Your task to perform on an android device: turn on showing notifications on the lock screen Image 0: 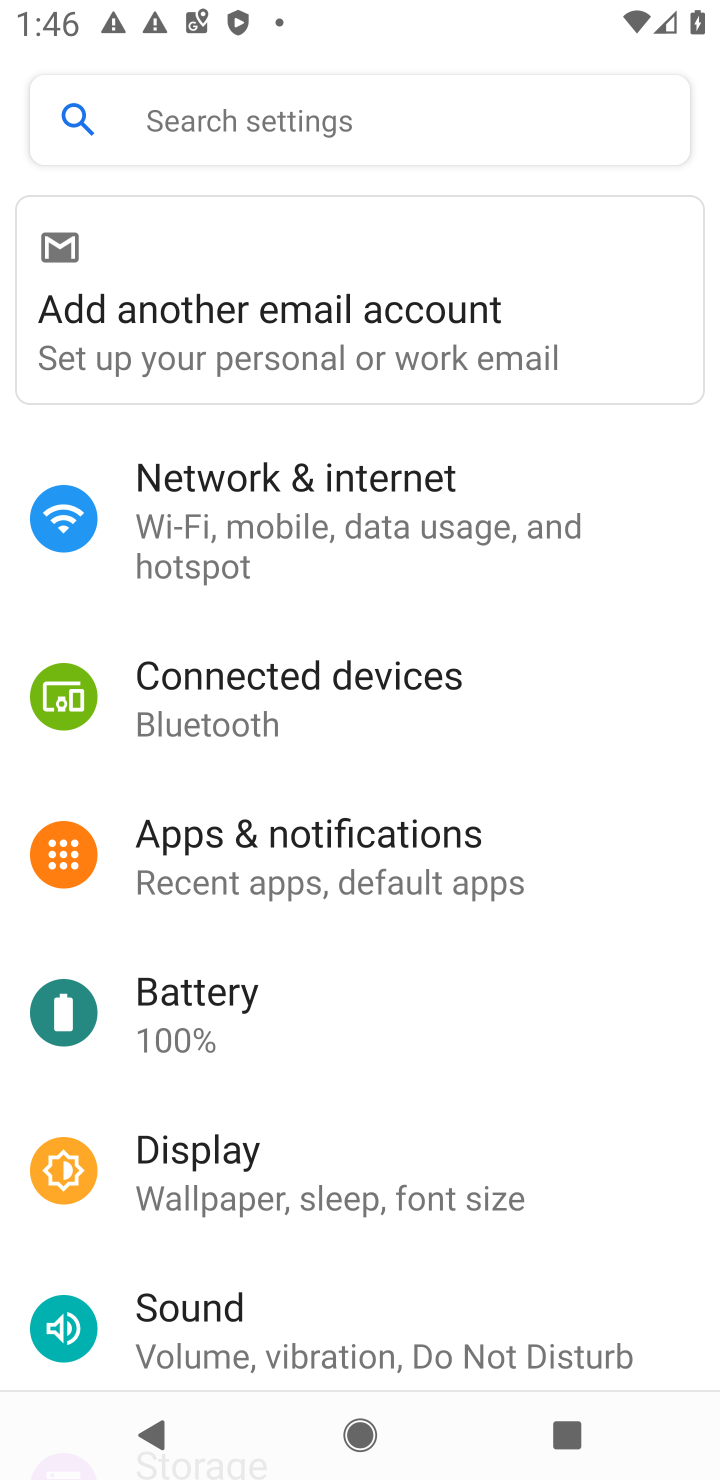
Step 0: click (263, 850)
Your task to perform on an android device: turn on showing notifications on the lock screen Image 1: 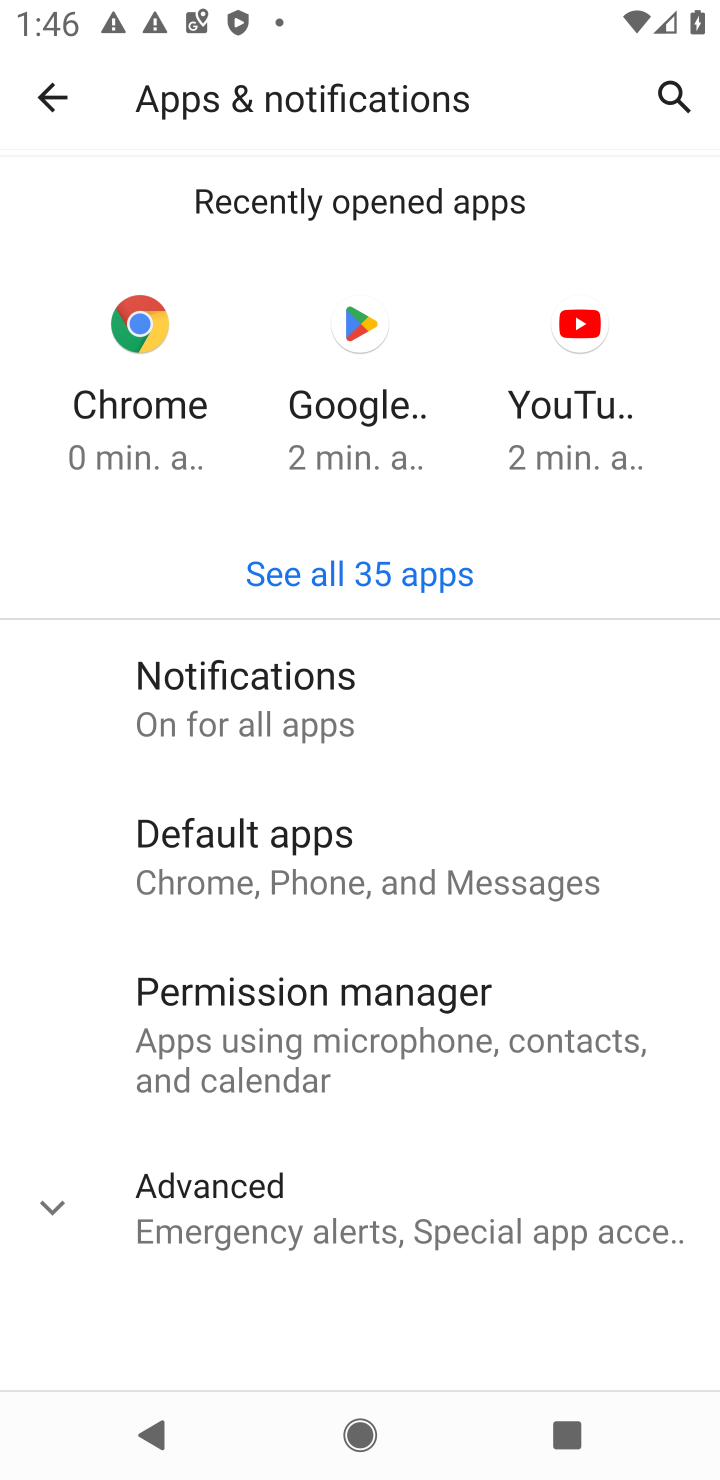
Step 1: click (210, 669)
Your task to perform on an android device: turn on showing notifications on the lock screen Image 2: 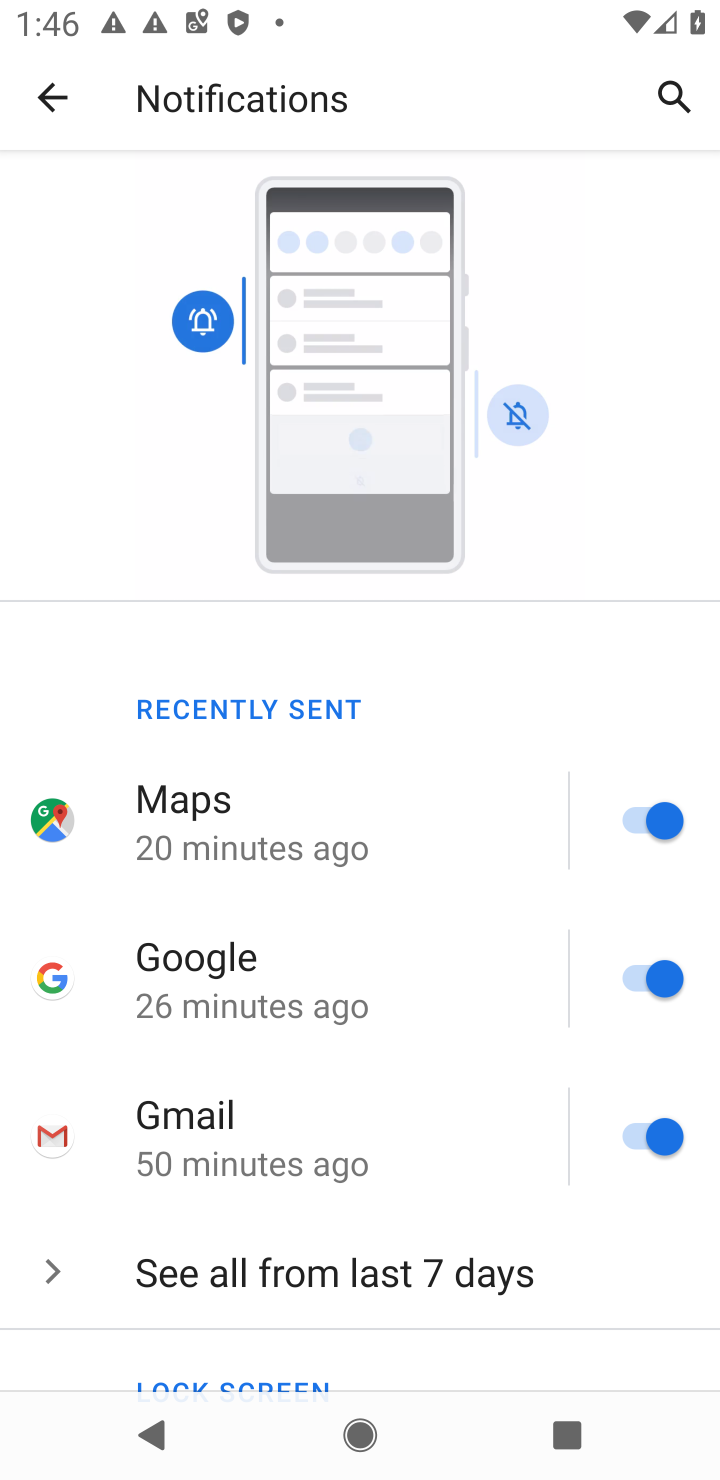
Step 2: drag from (571, 1319) to (543, 503)
Your task to perform on an android device: turn on showing notifications on the lock screen Image 3: 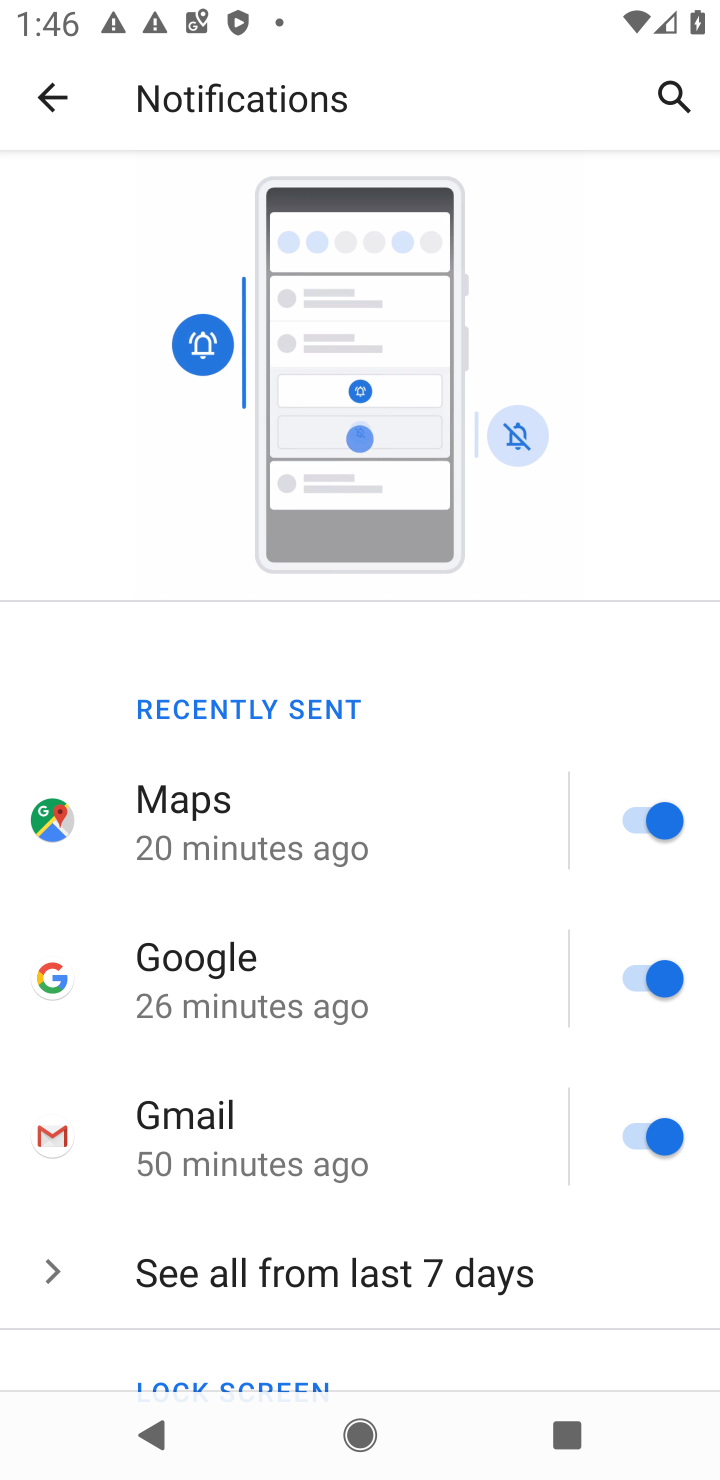
Step 3: drag from (555, 659) to (560, 474)
Your task to perform on an android device: turn on showing notifications on the lock screen Image 4: 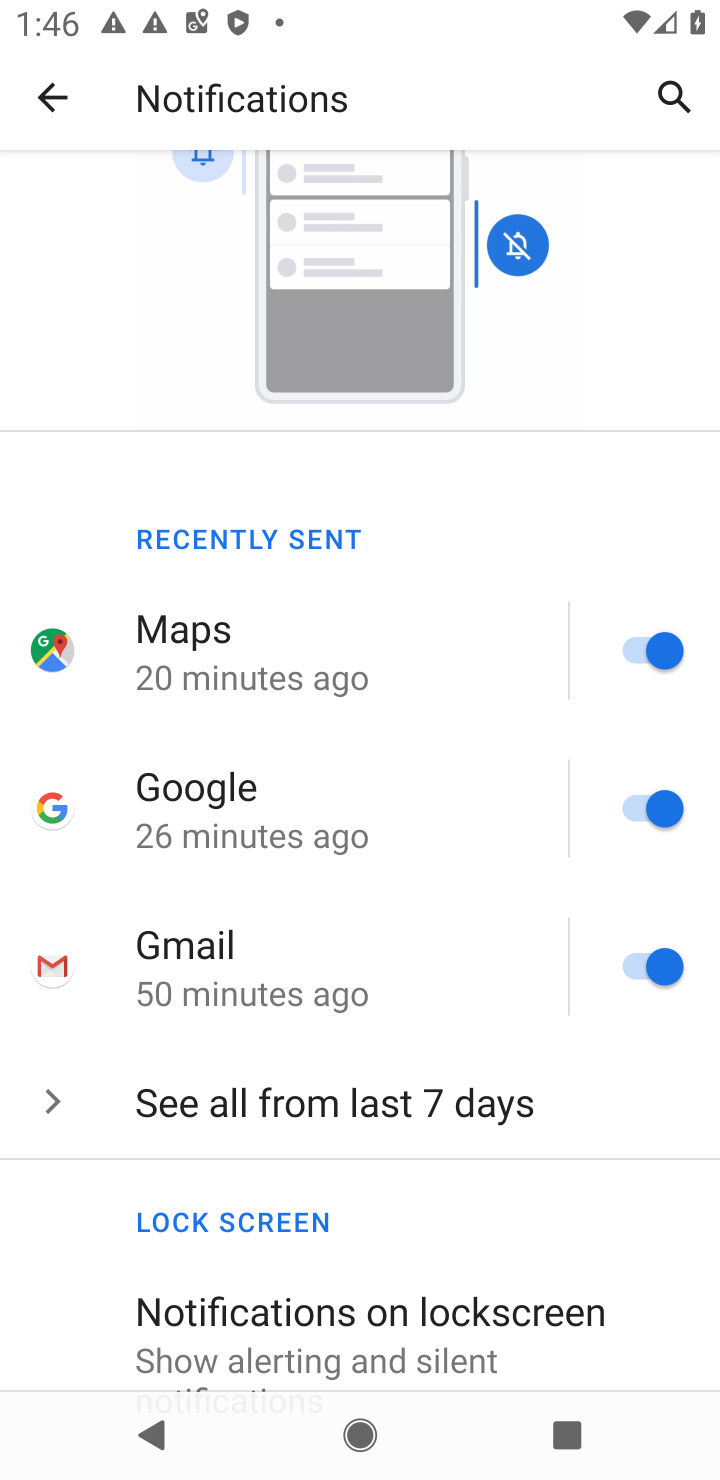
Step 4: drag from (518, 1304) to (540, 716)
Your task to perform on an android device: turn on showing notifications on the lock screen Image 5: 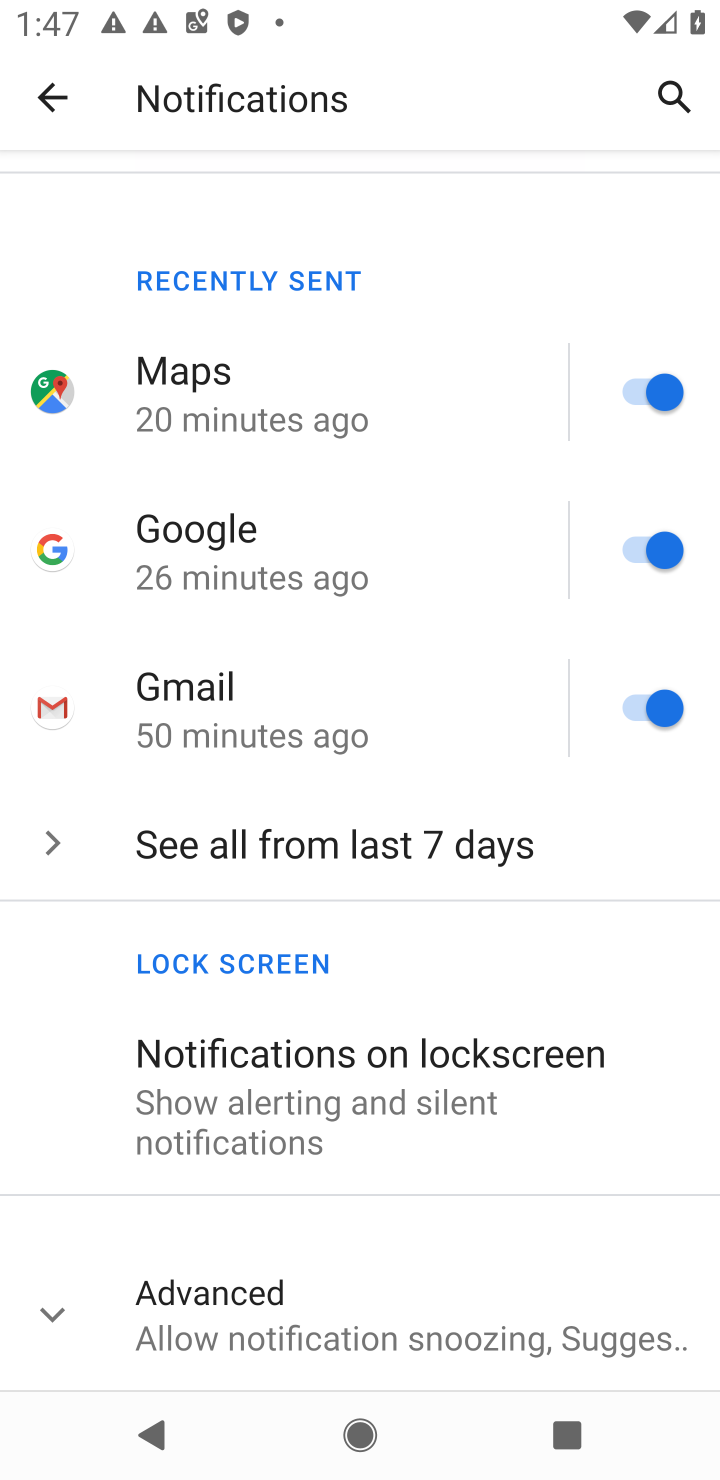
Step 5: click (252, 1091)
Your task to perform on an android device: turn on showing notifications on the lock screen Image 6: 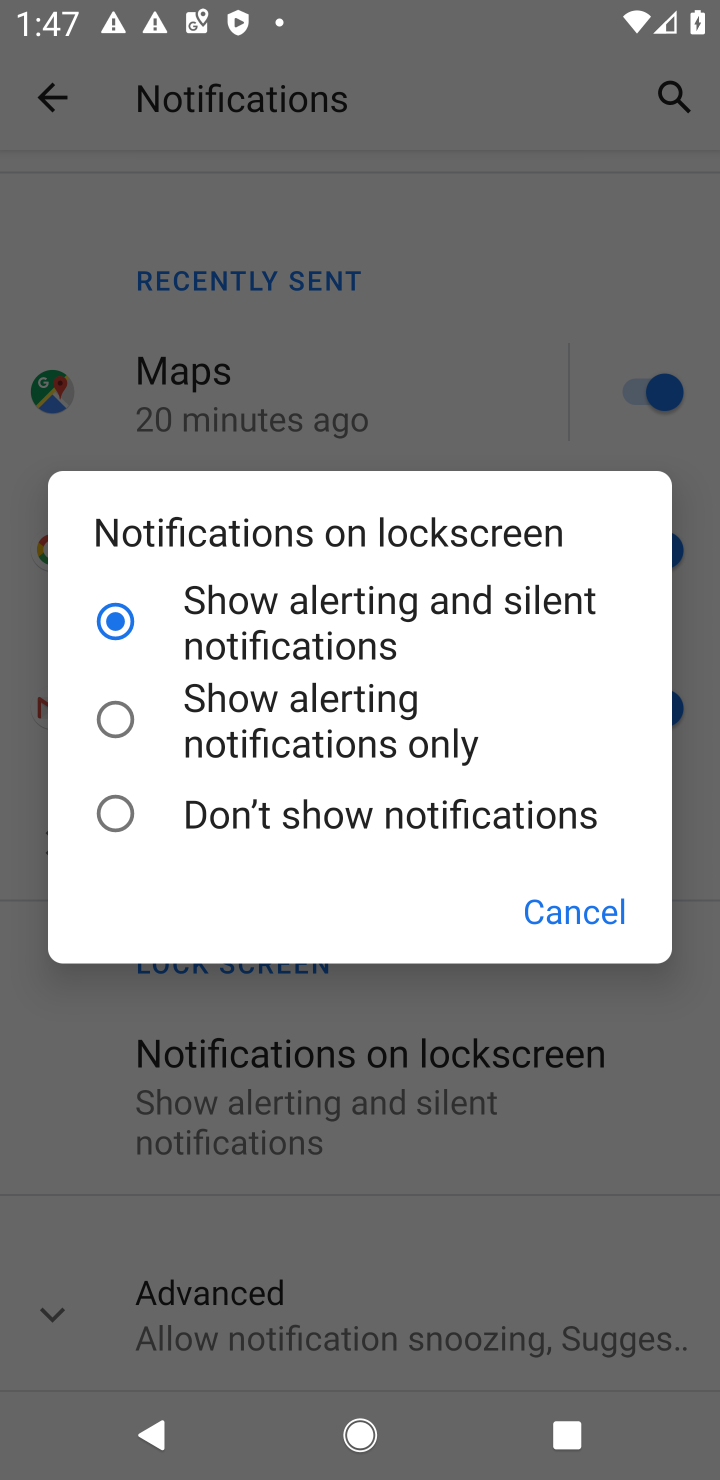
Step 6: task complete